Your task to perform on an android device: turn on data saver in the chrome app Image 0: 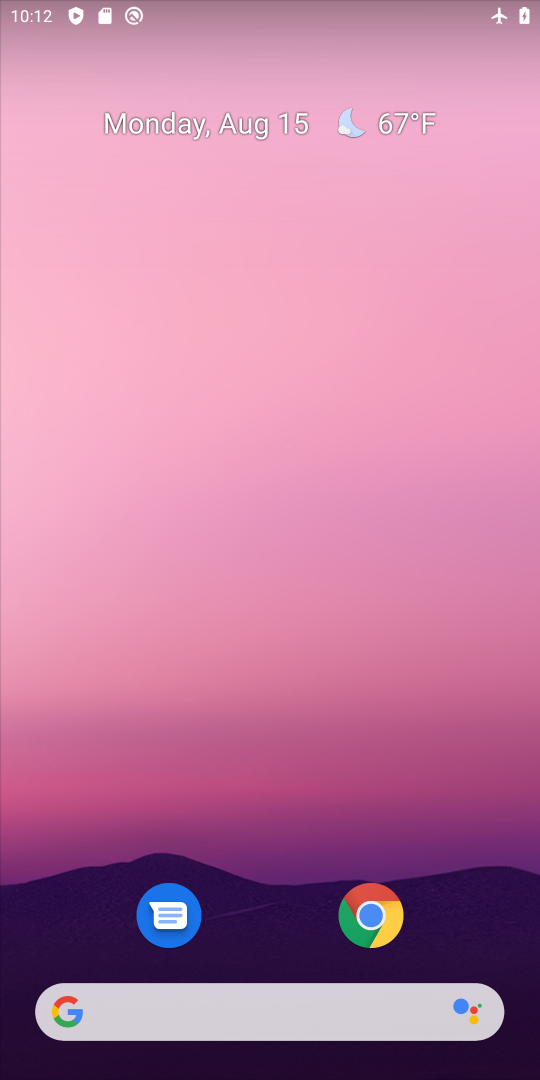
Step 0: click (403, 920)
Your task to perform on an android device: turn on data saver in the chrome app Image 1: 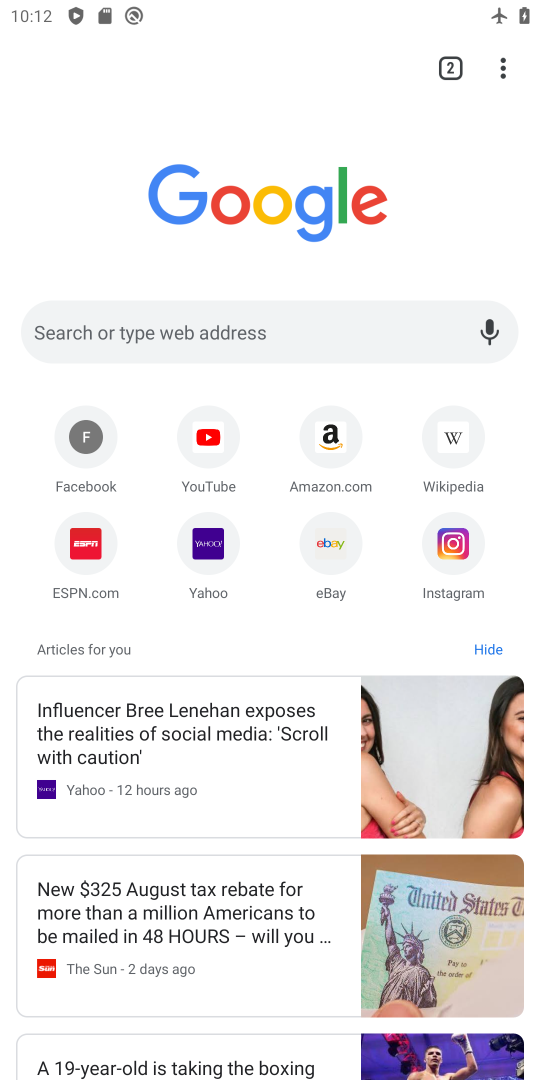
Step 1: click (503, 54)
Your task to perform on an android device: turn on data saver in the chrome app Image 2: 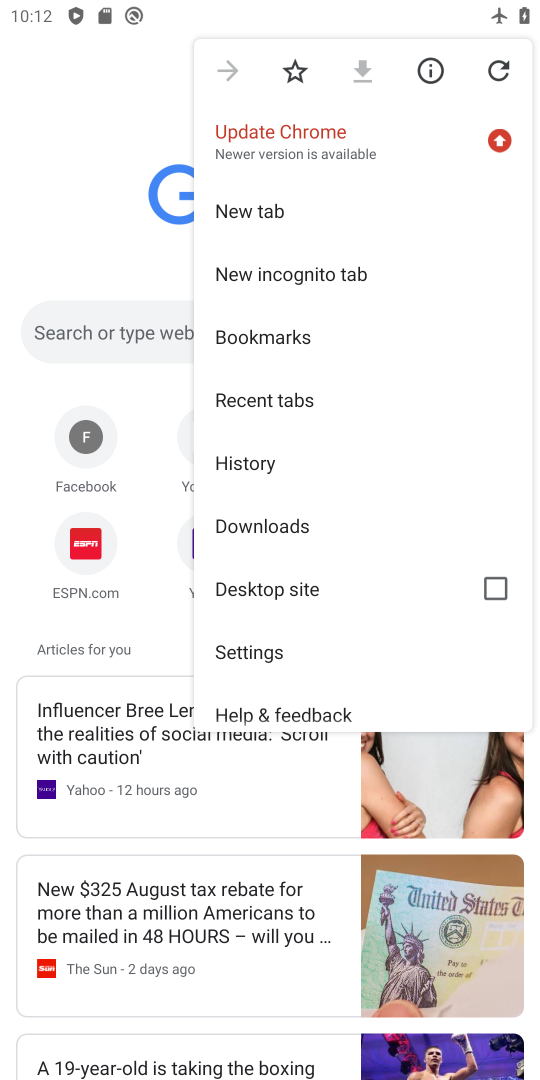
Step 2: click (267, 647)
Your task to perform on an android device: turn on data saver in the chrome app Image 3: 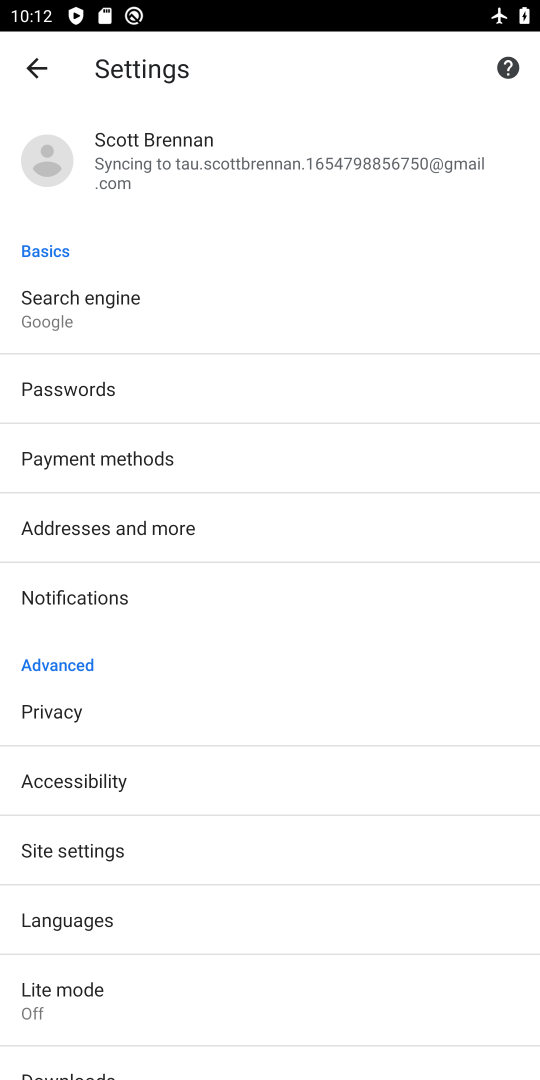
Step 3: drag from (279, 958) to (260, 804)
Your task to perform on an android device: turn on data saver in the chrome app Image 4: 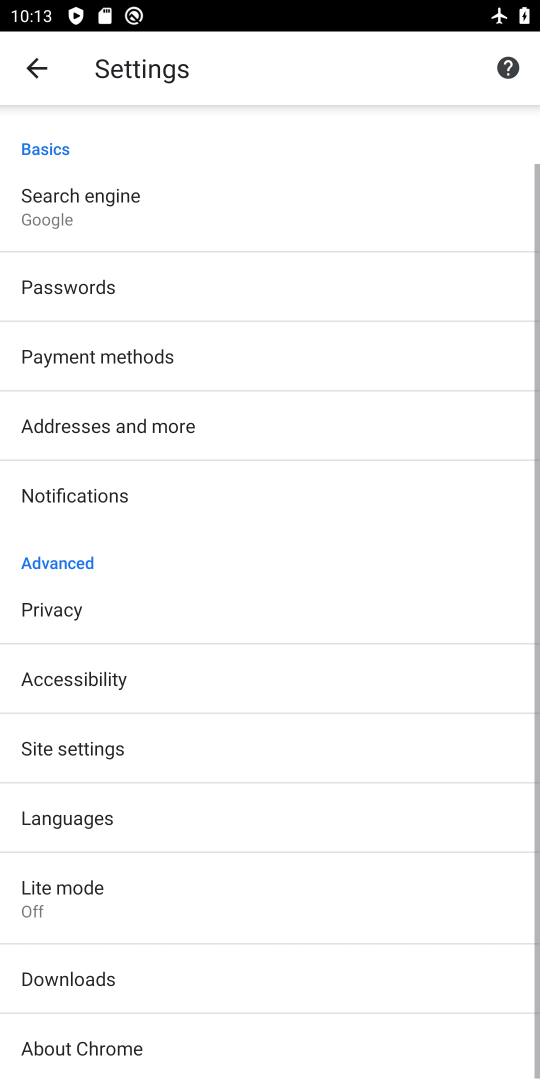
Step 4: click (87, 886)
Your task to perform on an android device: turn on data saver in the chrome app Image 5: 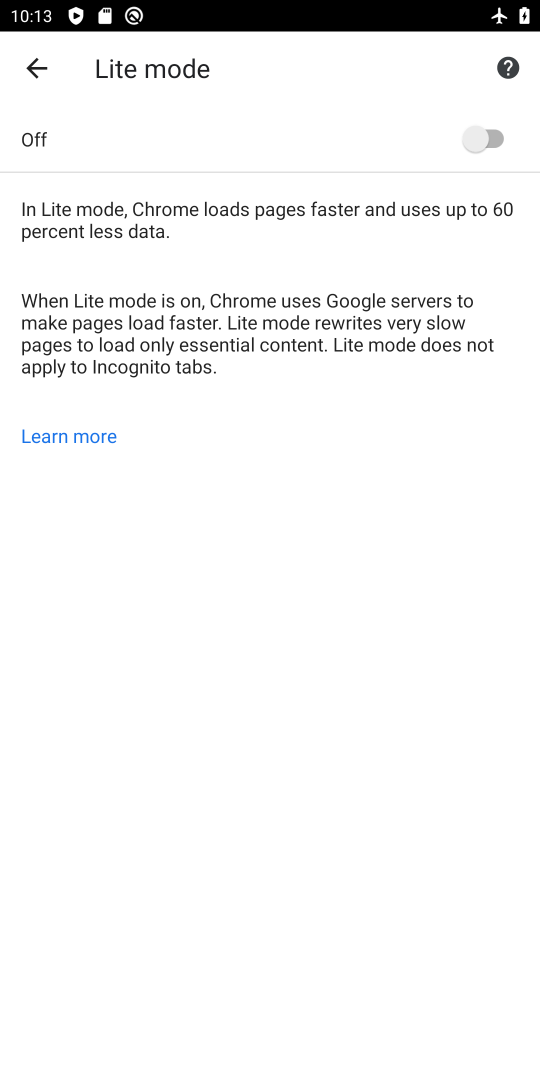
Step 5: click (490, 139)
Your task to perform on an android device: turn on data saver in the chrome app Image 6: 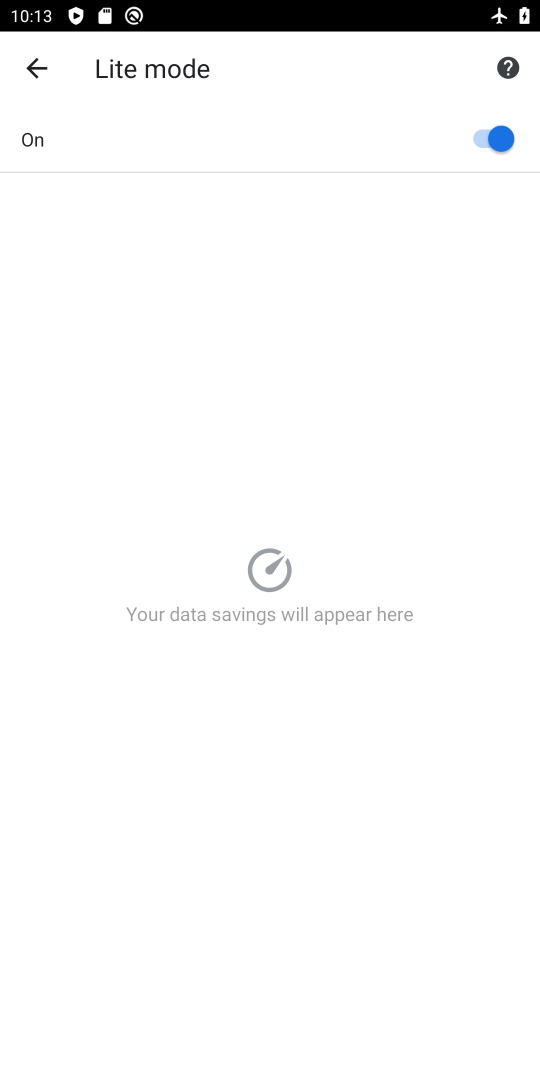
Step 6: task complete